Your task to perform on an android device: turn vacation reply on in the gmail app Image 0: 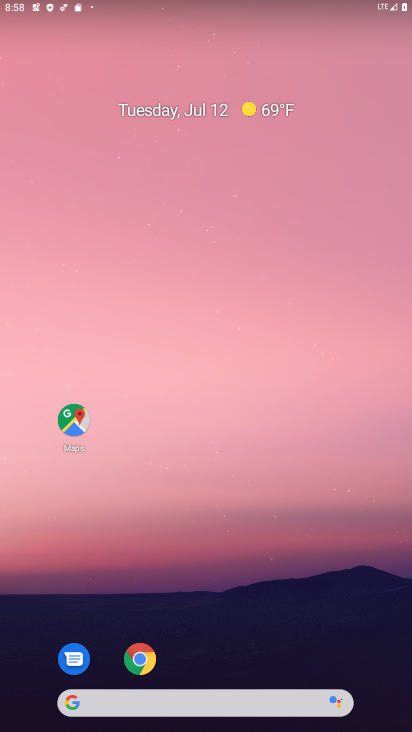
Step 0: click (238, 730)
Your task to perform on an android device: turn vacation reply on in the gmail app Image 1: 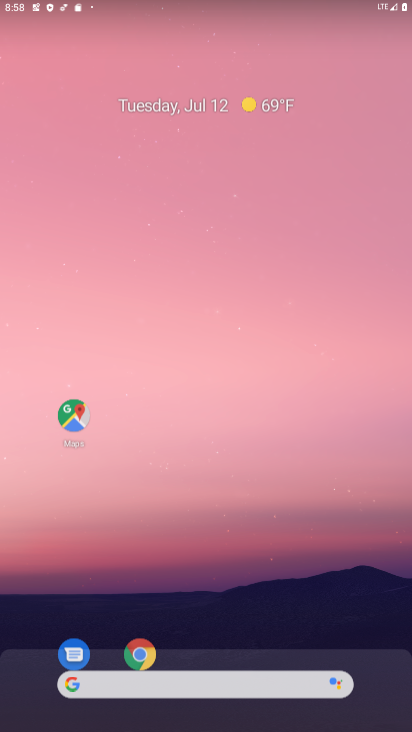
Step 1: drag from (238, 283) to (238, 161)
Your task to perform on an android device: turn vacation reply on in the gmail app Image 2: 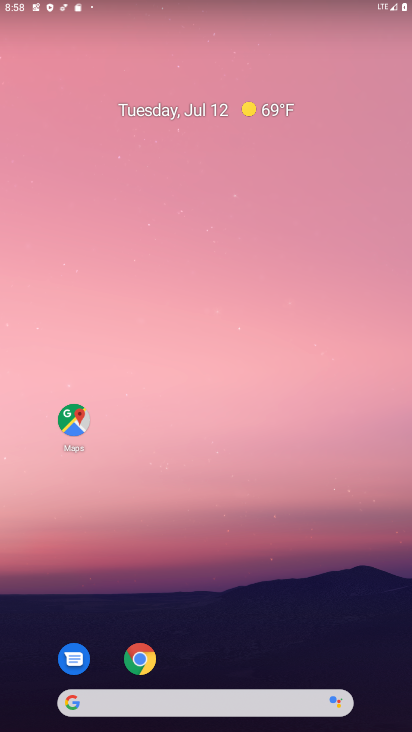
Step 2: click (202, 729)
Your task to perform on an android device: turn vacation reply on in the gmail app Image 3: 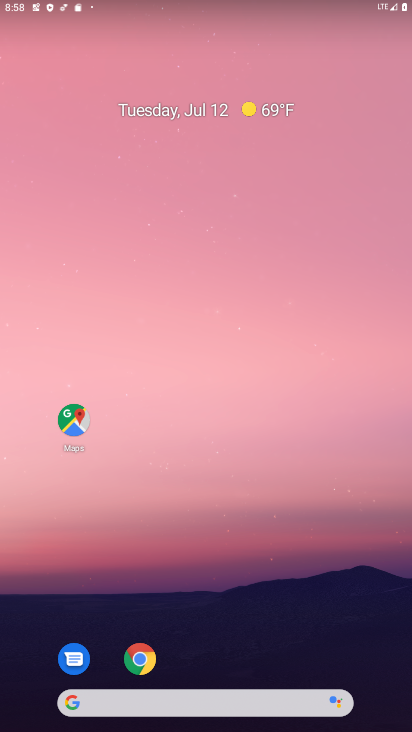
Step 3: click (198, 180)
Your task to perform on an android device: turn vacation reply on in the gmail app Image 4: 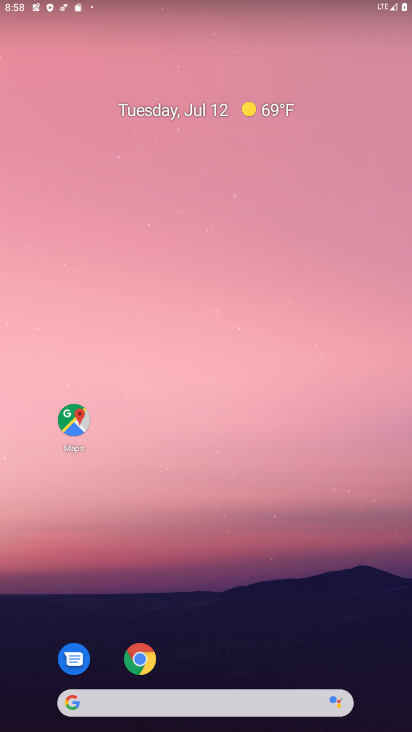
Step 4: click (374, 709)
Your task to perform on an android device: turn vacation reply on in the gmail app Image 5: 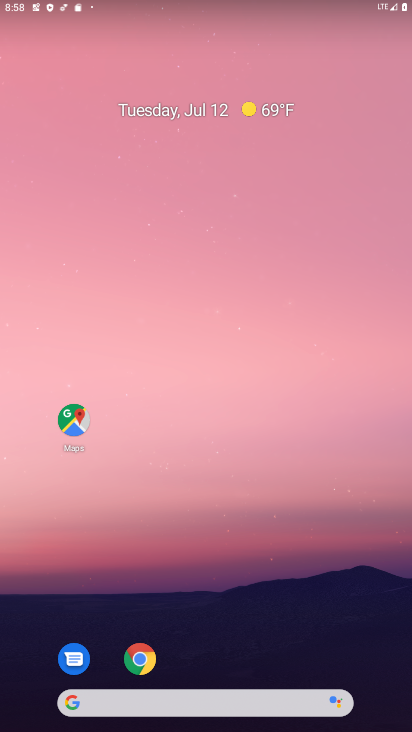
Step 5: click (374, 303)
Your task to perform on an android device: turn vacation reply on in the gmail app Image 6: 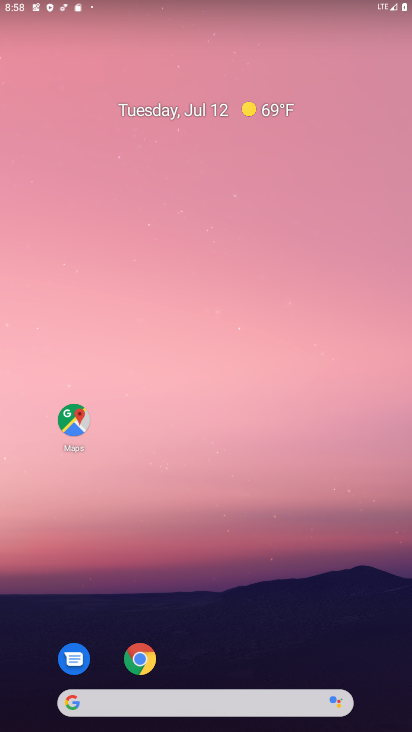
Step 6: click (372, 715)
Your task to perform on an android device: turn vacation reply on in the gmail app Image 7: 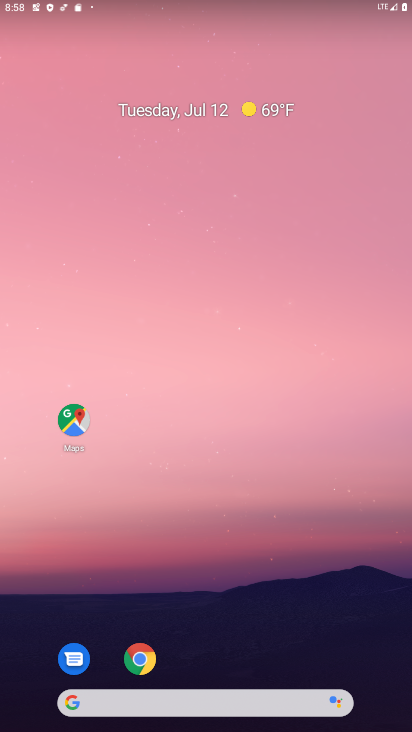
Step 7: drag from (307, 118) to (302, 73)
Your task to perform on an android device: turn vacation reply on in the gmail app Image 8: 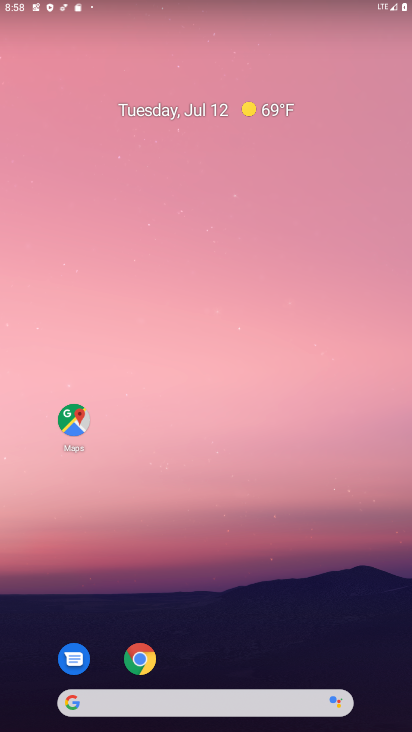
Step 8: drag from (232, 729) to (235, 599)
Your task to perform on an android device: turn vacation reply on in the gmail app Image 9: 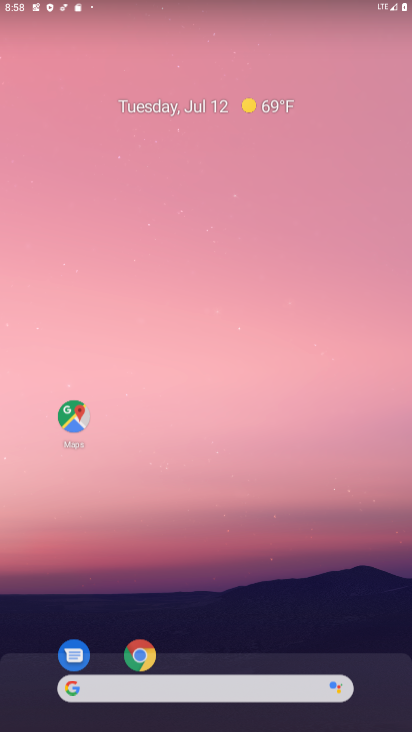
Step 9: drag from (268, 204) to (271, 117)
Your task to perform on an android device: turn vacation reply on in the gmail app Image 10: 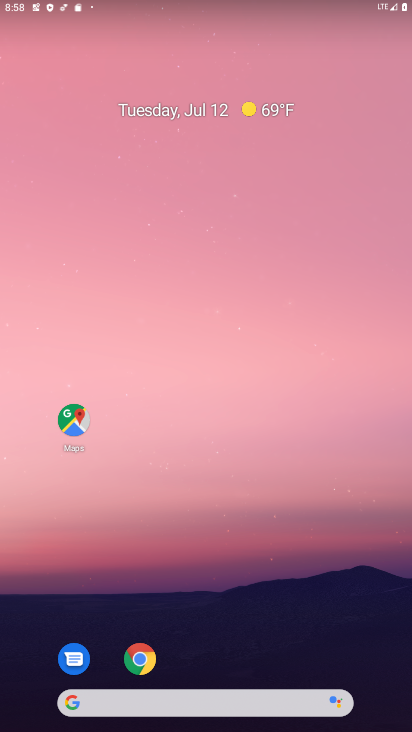
Step 10: click (234, 730)
Your task to perform on an android device: turn vacation reply on in the gmail app Image 11: 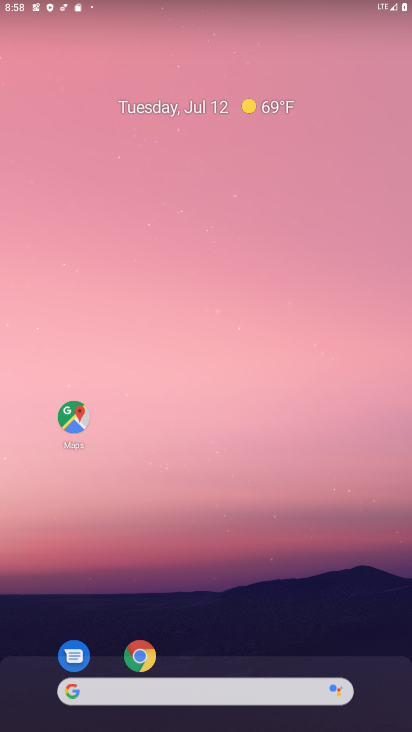
Step 11: click (242, 132)
Your task to perform on an android device: turn vacation reply on in the gmail app Image 12: 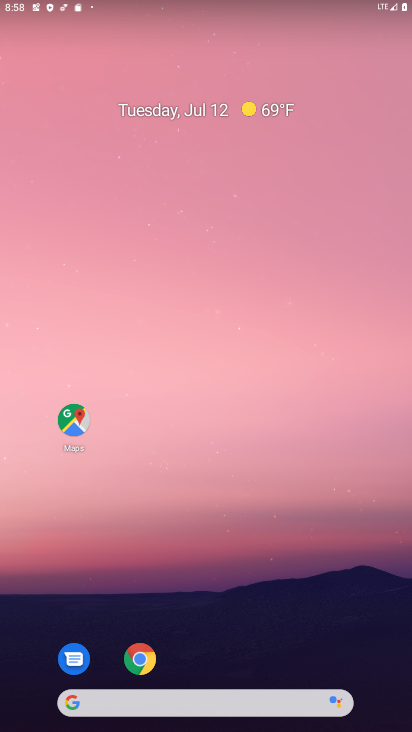
Step 12: drag from (267, 724) to (245, 61)
Your task to perform on an android device: turn vacation reply on in the gmail app Image 13: 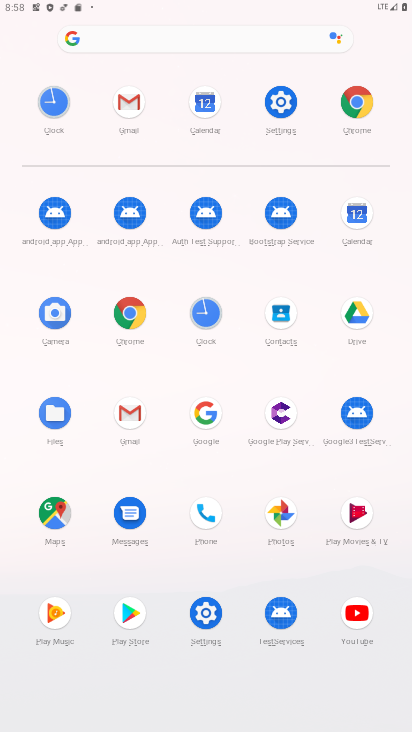
Step 13: click (122, 415)
Your task to perform on an android device: turn vacation reply on in the gmail app Image 14: 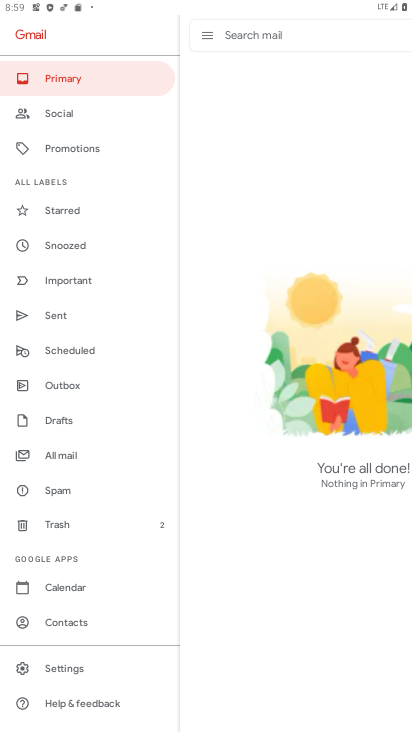
Step 14: click (68, 670)
Your task to perform on an android device: turn vacation reply on in the gmail app Image 15: 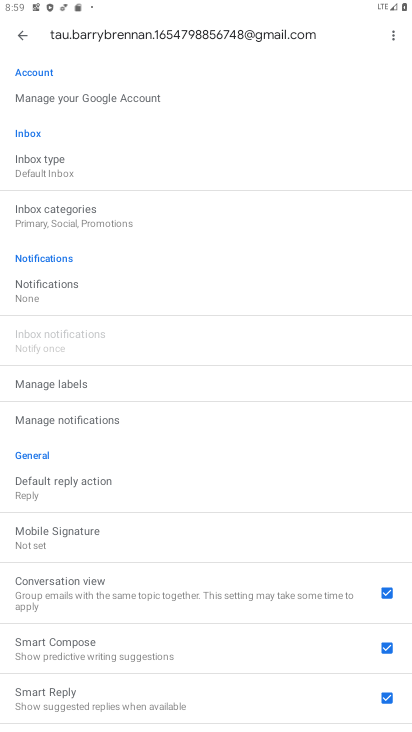
Step 15: drag from (217, 716) to (218, 669)
Your task to perform on an android device: turn vacation reply on in the gmail app Image 16: 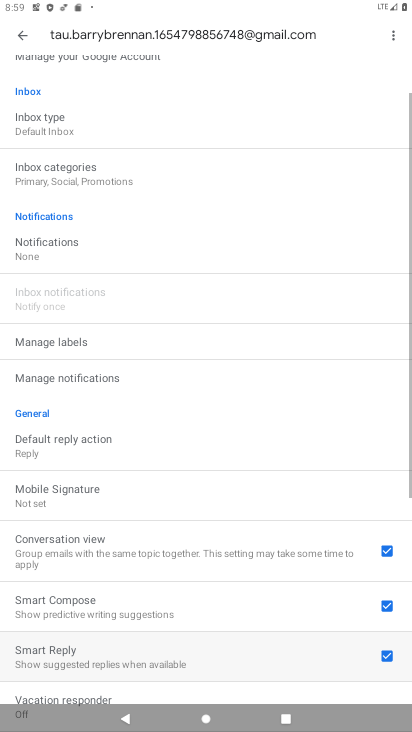
Step 16: drag from (227, 433) to (235, 341)
Your task to perform on an android device: turn vacation reply on in the gmail app Image 17: 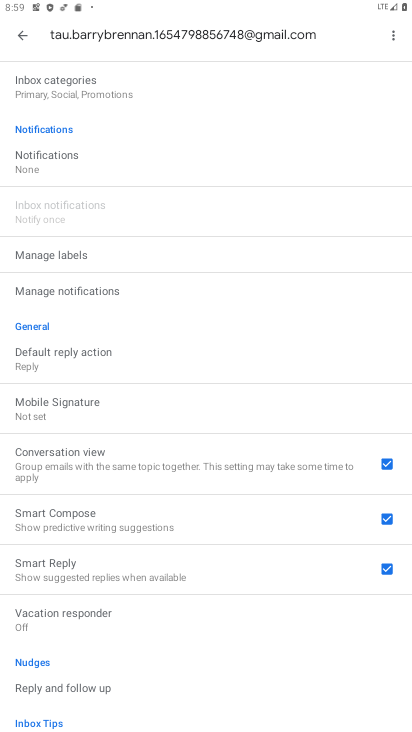
Step 17: drag from (153, 679) to (178, 423)
Your task to perform on an android device: turn vacation reply on in the gmail app Image 18: 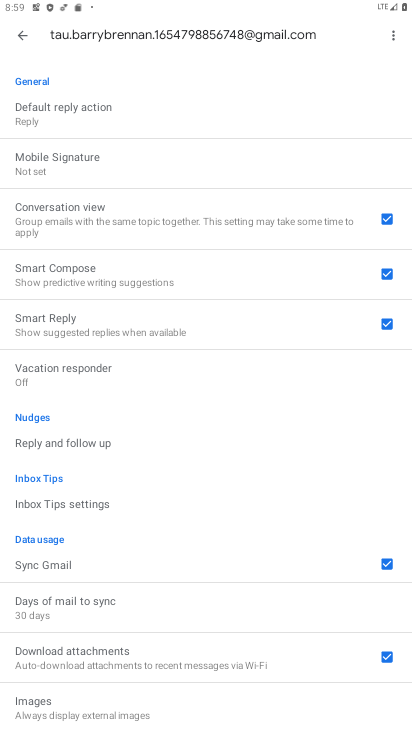
Step 18: click (83, 359)
Your task to perform on an android device: turn vacation reply on in the gmail app Image 19: 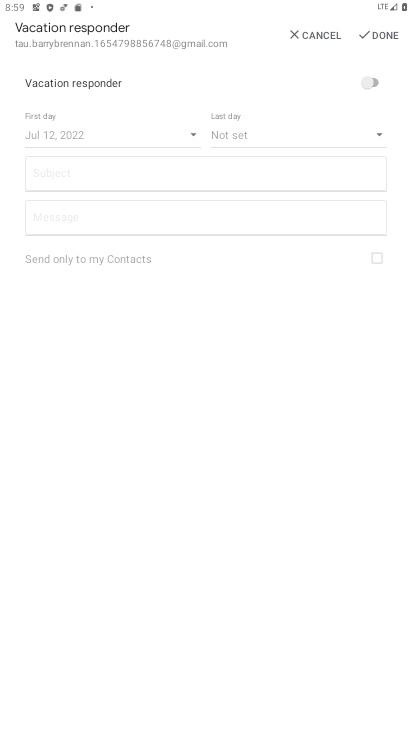
Step 19: click (372, 77)
Your task to perform on an android device: turn vacation reply on in the gmail app Image 20: 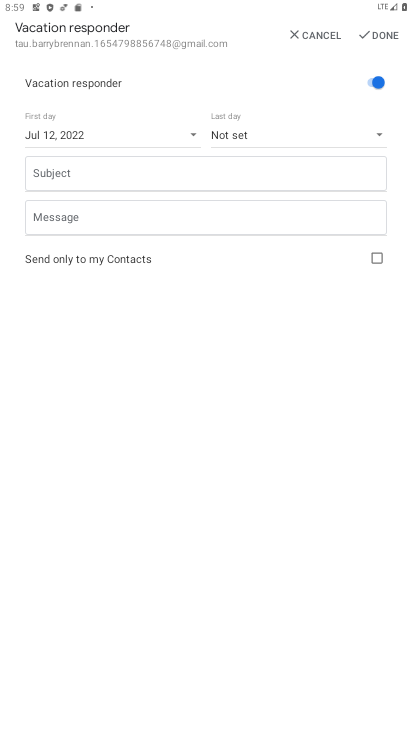
Step 20: task complete